Your task to perform on an android device: check the backup settings in the google photos Image 0: 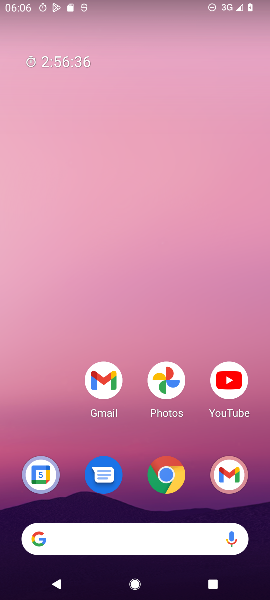
Step 0: press home button
Your task to perform on an android device: check the backup settings in the google photos Image 1: 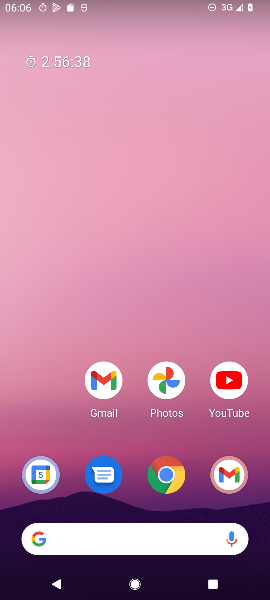
Step 1: drag from (60, 431) to (69, 119)
Your task to perform on an android device: check the backup settings in the google photos Image 2: 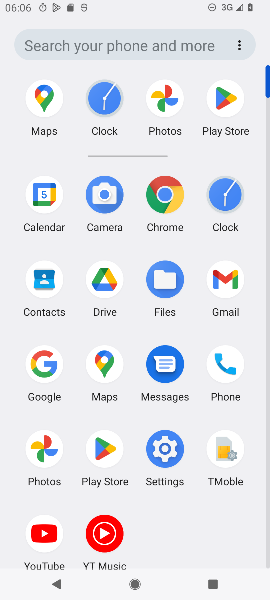
Step 2: click (50, 455)
Your task to perform on an android device: check the backup settings in the google photos Image 3: 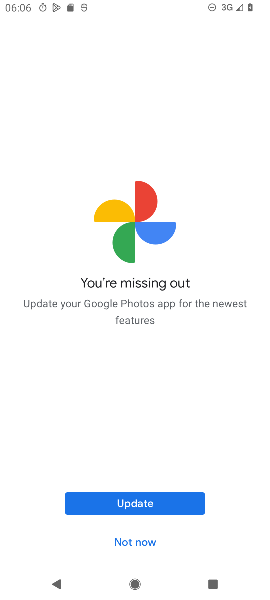
Step 3: click (132, 539)
Your task to perform on an android device: check the backup settings in the google photos Image 4: 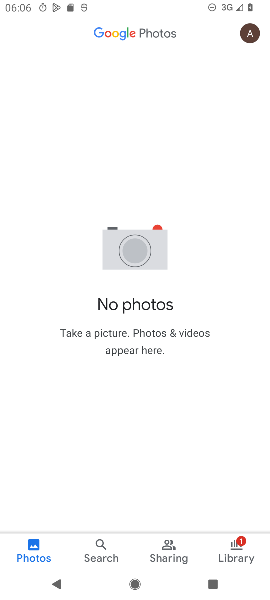
Step 4: click (252, 37)
Your task to perform on an android device: check the backup settings in the google photos Image 5: 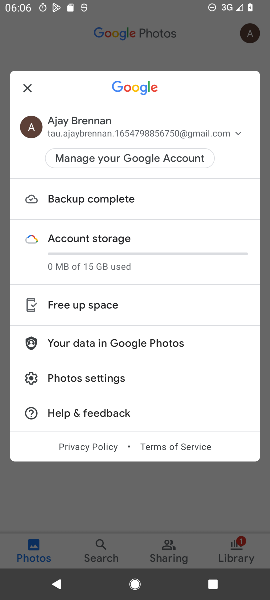
Step 5: click (119, 375)
Your task to perform on an android device: check the backup settings in the google photos Image 6: 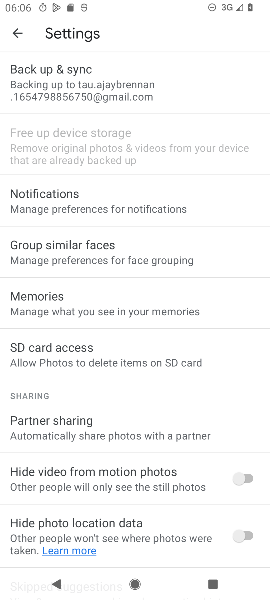
Step 6: drag from (207, 176) to (217, 295)
Your task to perform on an android device: check the backup settings in the google photos Image 7: 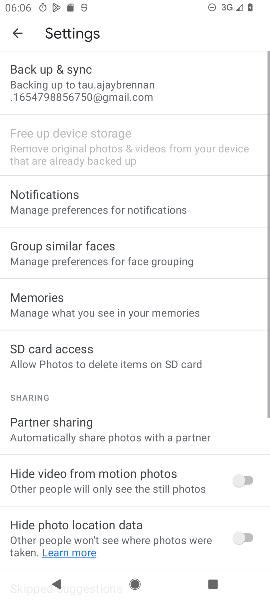
Step 7: click (152, 83)
Your task to perform on an android device: check the backup settings in the google photos Image 8: 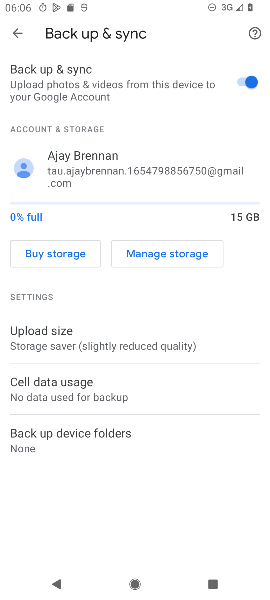
Step 8: task complete